Your task to perform on an android device: Open Google Chrome and click the shortcut for Amazon.com Image 0: 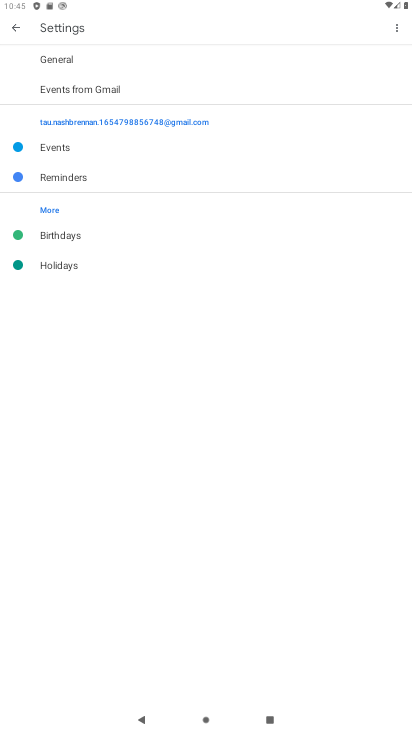
Step 0: press home button
Your task to perform on an android device: Open Google Chrome and click the shortcut for Amazon.com Image 1: 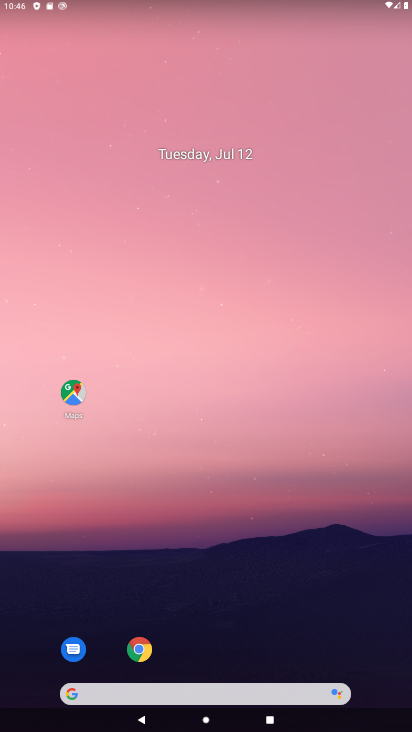
Step 1: drag from (280, 695) to (278, 74)
Your task to perform on an android device: Open Google Chrome and click the shortcut for Amazon.com Image 2: 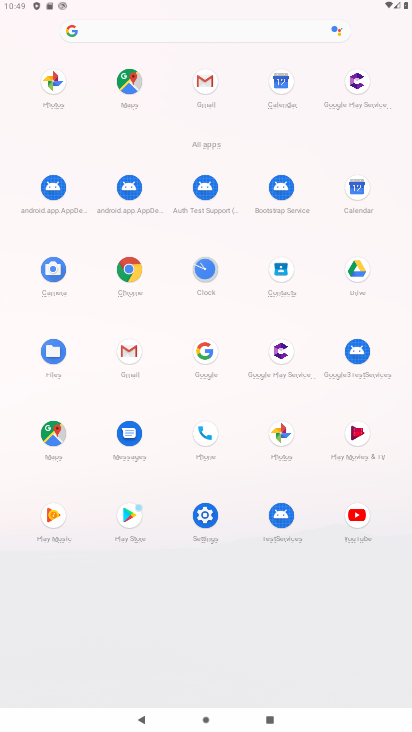
Step 2: click (120, 269)
Your task to perform on an android device: Open Google Chrome and click the shortcut for Amazon.com Image 3: 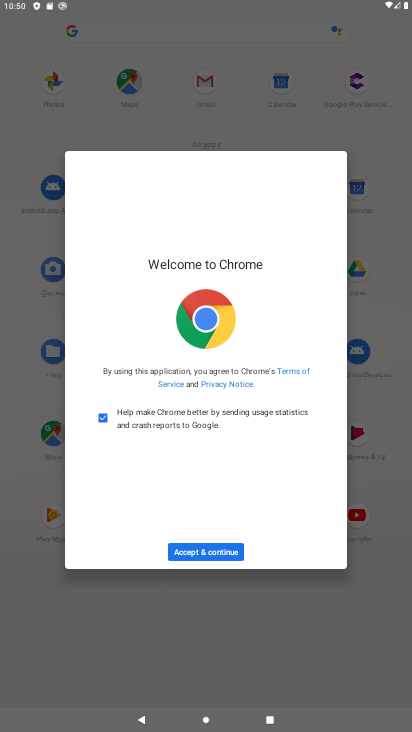
Step 3: click (212, 549)
Your task to perform on an android device: Open Google Chrome and click the shortcut for Amazon.com Image 4: 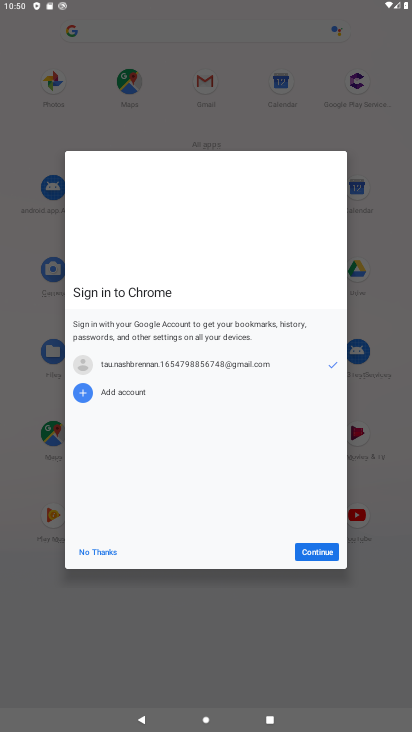
Step 4: click (328, 560)
Your task to perform on an android device: Open Google Chrome and click the shortcut for Amazon.com Image 5: 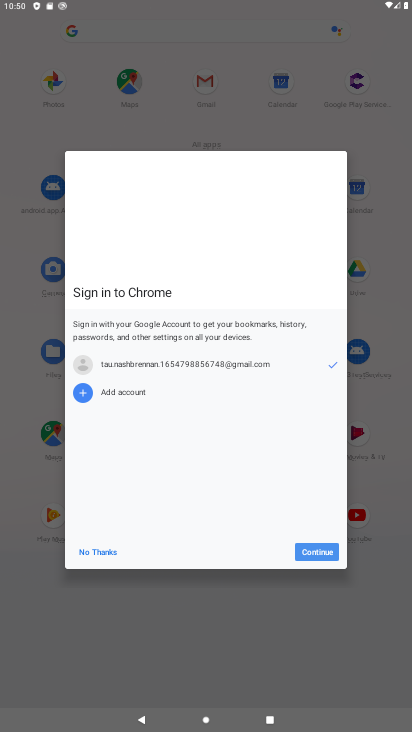
Step 5: click (328, 560)
Your task to perform on an android device: Open Google Chrome and click the shortcut for Amazon.com Image 6: 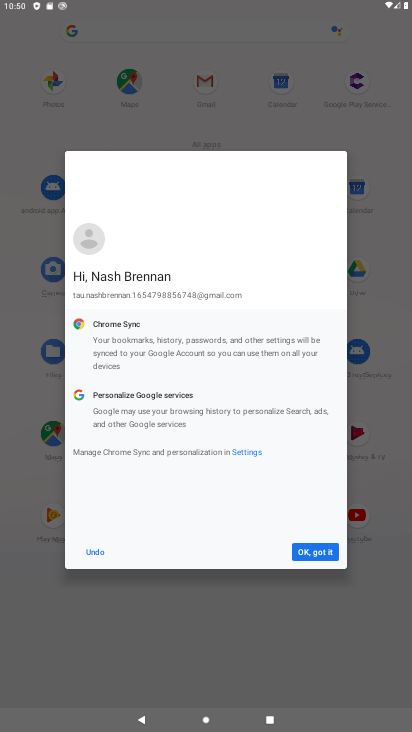
Step 6: click (328, 560)
Your task to perform on an android device: Open Google Chrome and click the shortcut for Amazon.com Image 7: 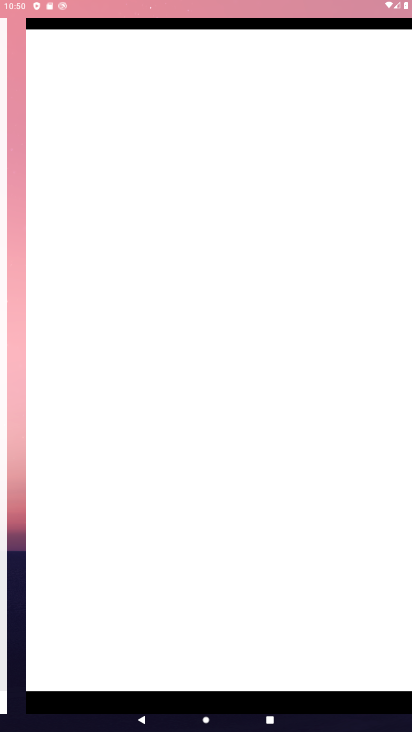
Step 7: click (328, 560)
Your task to perform on an android device: Open Google Chrome and click the shortcut for Amazon.com Image 8: 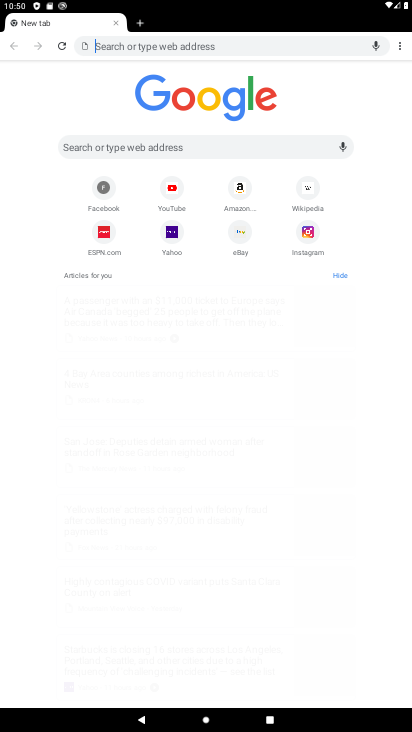
Step 8: click (242, 184)
Your task to perform on an android device: Open Google Chrome and click the shortcut for Amazon.com Image 9: 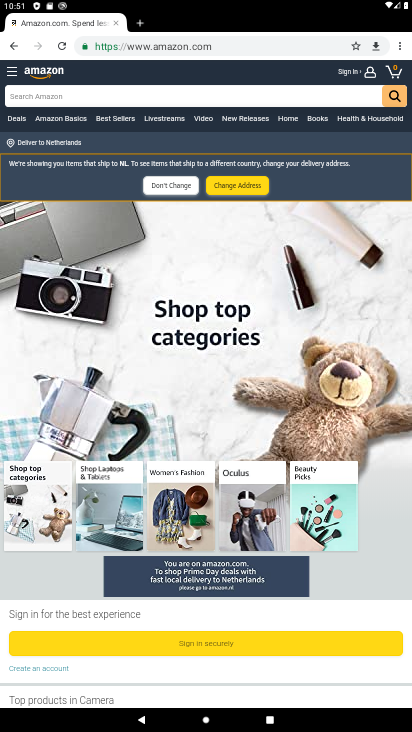
Step 9: task complete